Your task to perform on an android device: turn pop-ups on in chrome Image 0: 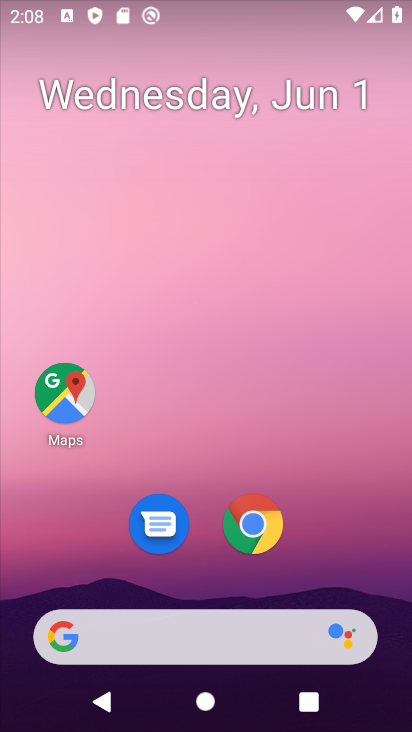
Step 0: click (262, 532)
Your task to perform on an android device: turn pop-ups on in chrome Image 1: 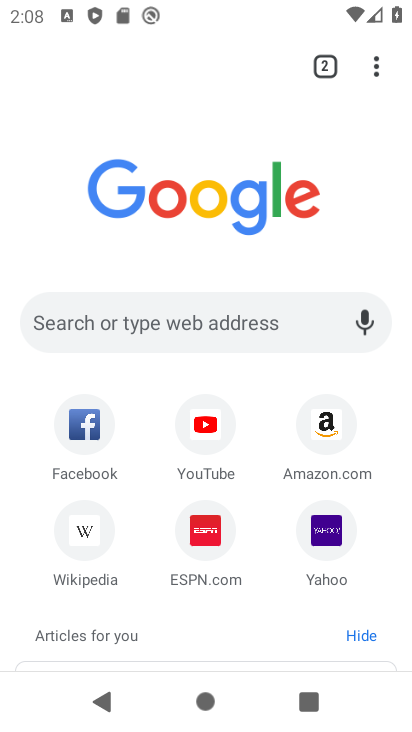
Step 1: click (372, 64)
Your task to perform on an android device: turn pop-ups on in chrome Image 2: 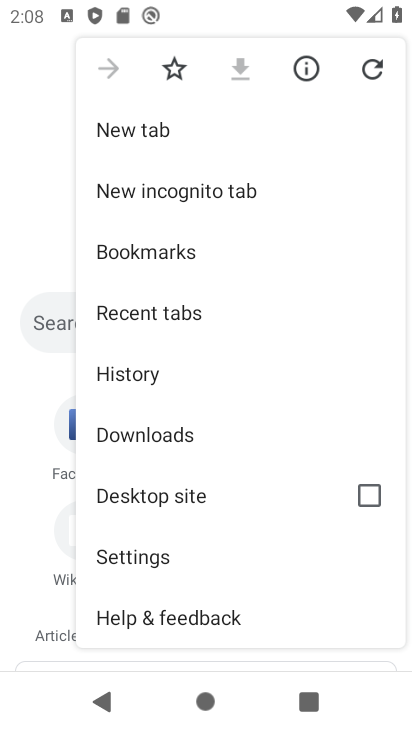
Step 2: click (200, 561)
Your task to perform on an android device: turn pop-ups on in chrome Image 3: 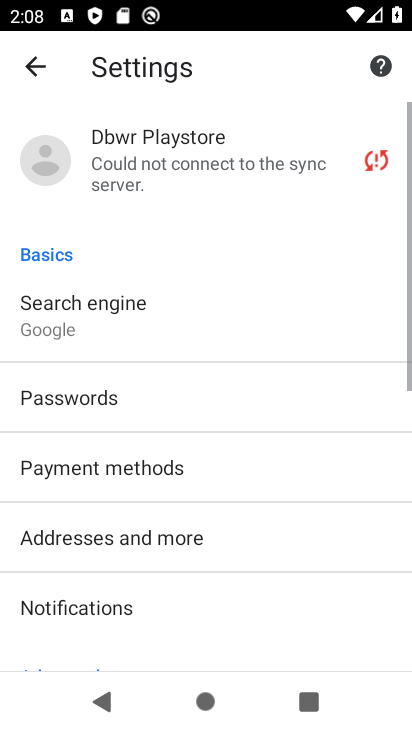
Step 3: drag from (271, 451) to (306, 193)
Your task to perform on an android device: turn pop-ups on in chrome Image 4: 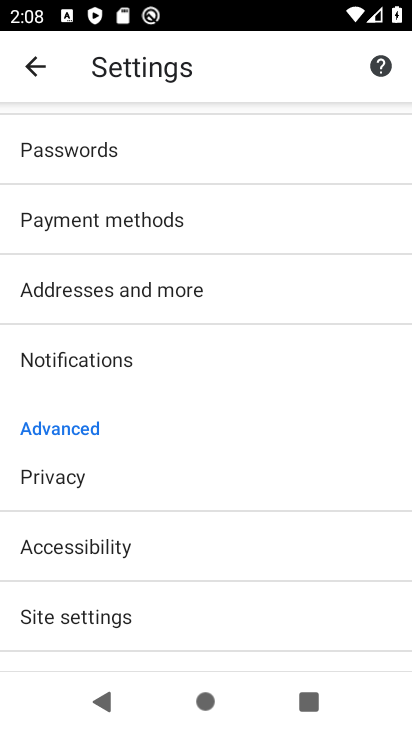
Step 4: click (226, 621)
Your task to perform on an android device: turn pop-ups on in chrome Image 5: 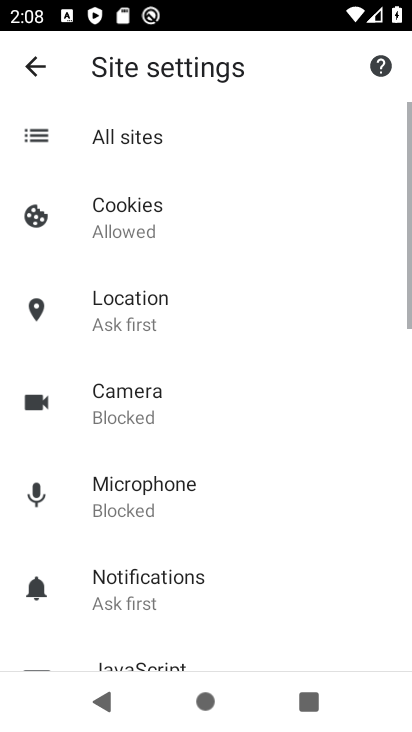
Step 5: drag from (277, 559) to (276, 172)
Your task to perform on an android device: turn pop-ups on in chrome Image 6: 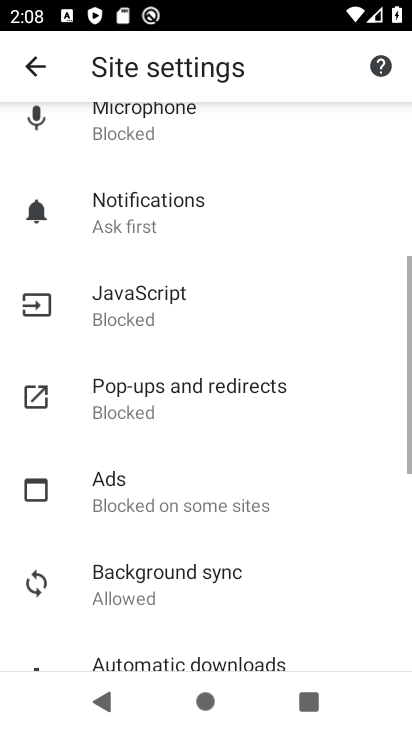
Step 6: click (256, 564)
Your task to perform on an android device: turn pop-ups on in chrome Image 7: 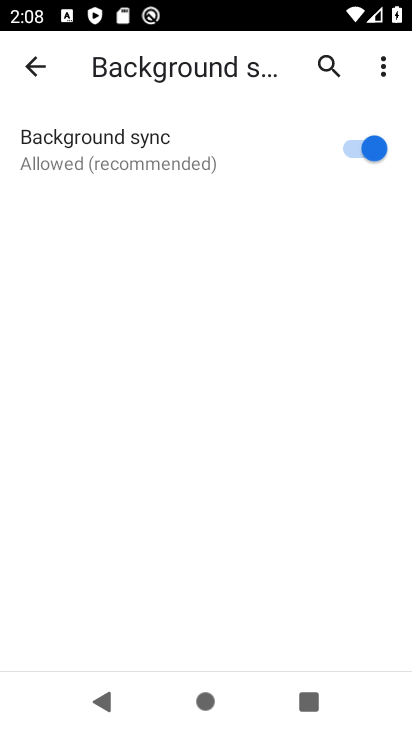
Step 7: click (32, 56)
Your task to perform on an android device: turn pop-ups on in chrome Image 8: 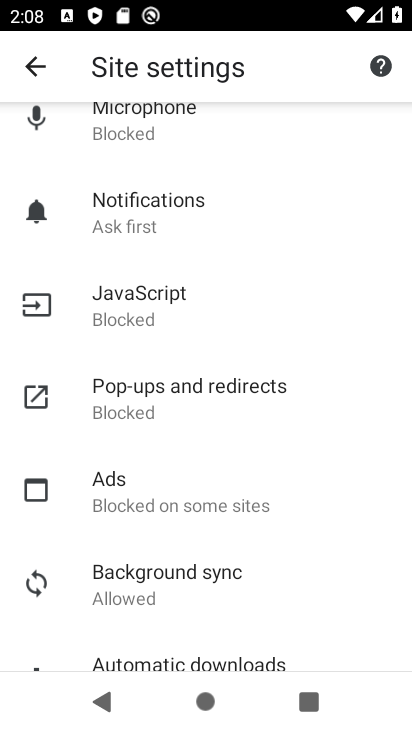
Step 8: click (222, 385)
Your task to perform on an android device: turn pop-ups on in chrome Image 9: 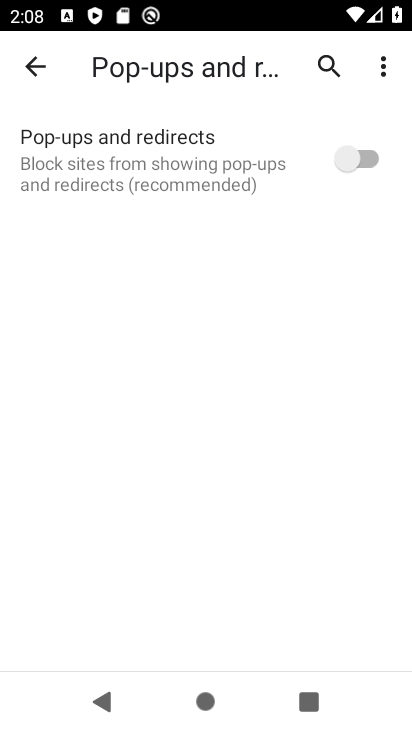
Step 9: click (358, 138)
Your task to perform on an android device: turn pop-ups on in chrome Image 10: 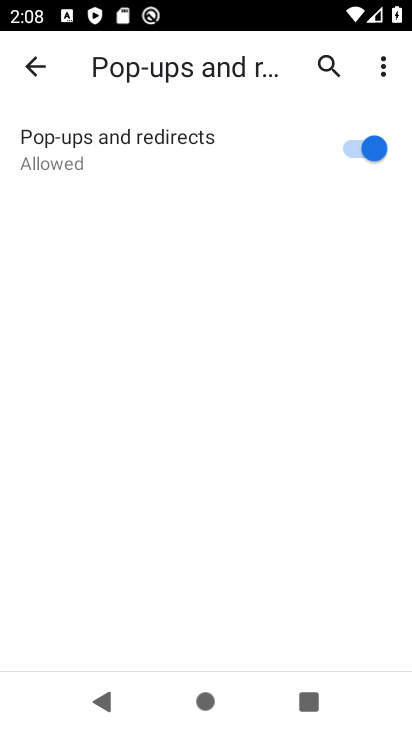
Step 10: task complete